Your task to perform on an android device: Open Google Chrome and click the shortcut for Amazon.com Image 0: 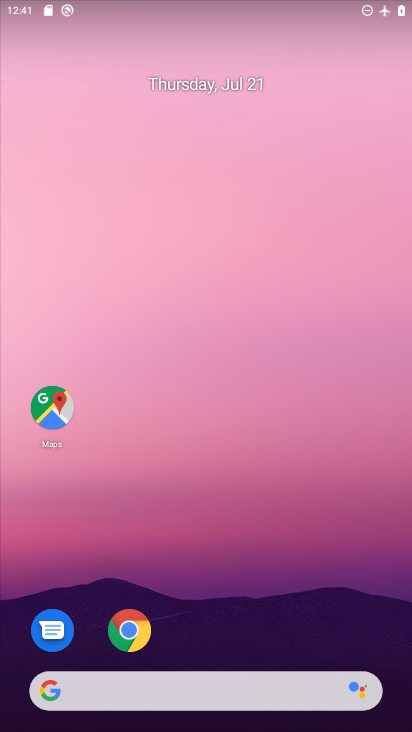
Step 0: click (136, 642)
Your task to perform on an android device: Open Google Chrome and click the shortcut for Amazon.com Image 1: 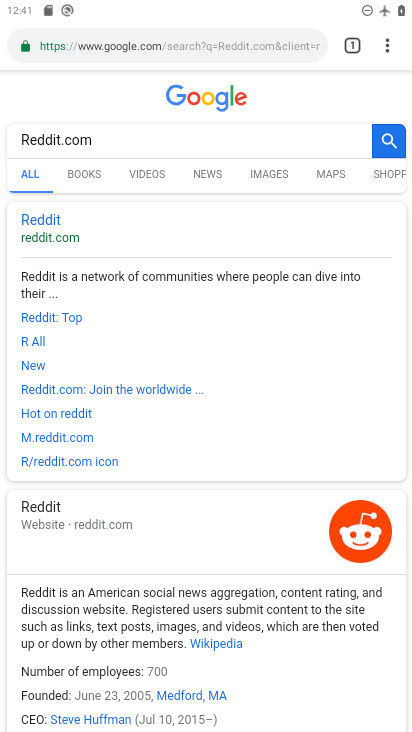
Step 1: click (387, 49)
Your task to perform on an android device: Open Google Chrome and click the shortcut for Amazon.com Image 2: 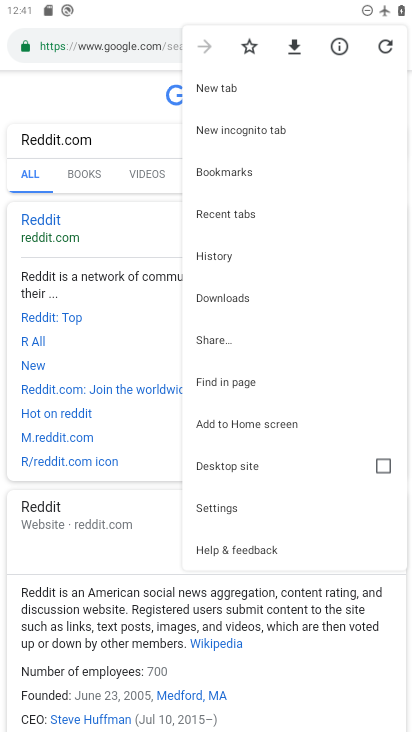
Step 2: click (199, 87)
Your task to perform on an android device: Open Google Chrome and click the shortcut for Amazon.com Image 3: 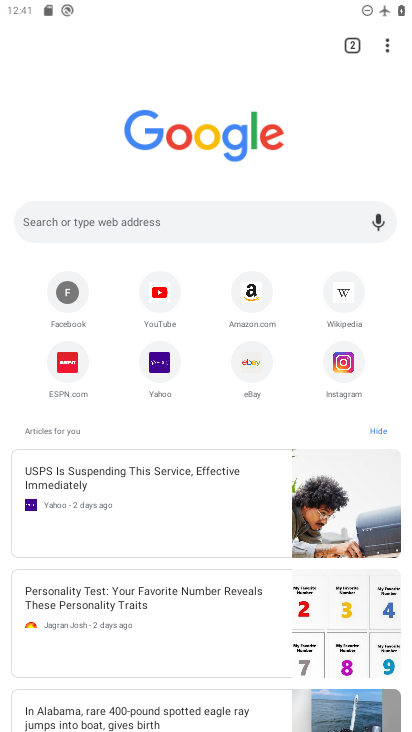
Step 3: click (259, 294)
Your task to perform on an android device: Open Google Chrome and click the shortcut for Amazon.com Image 4: 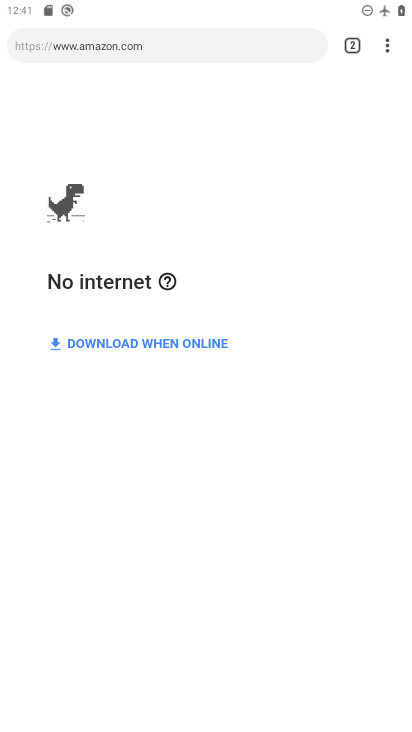
Step 4: task complete